Your task to perform on an android device: Open internet settings Image 0: 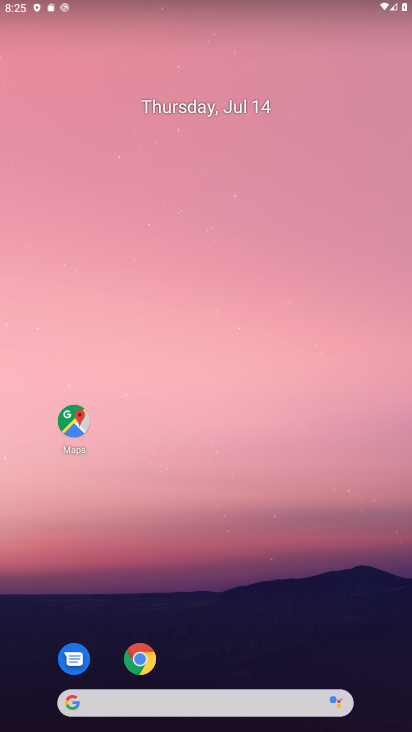
Step 0: drag from (194, 666) to (188, 215)
Your task to perform on an android device: Open internet settings Image 1: 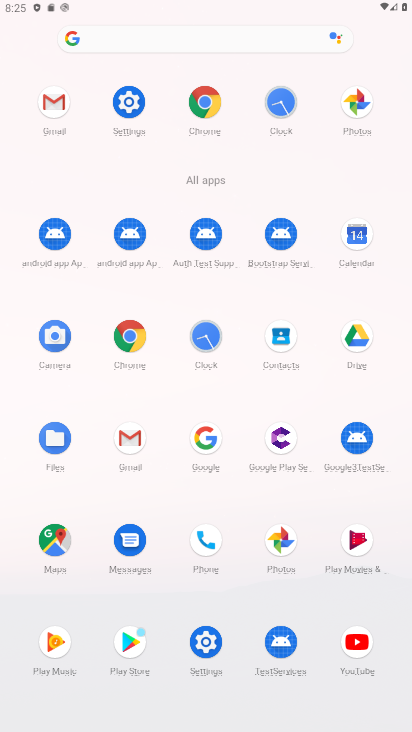
Step 1: click (127, 111)
Your task to perform on an android device: Open internet settings Image 2: 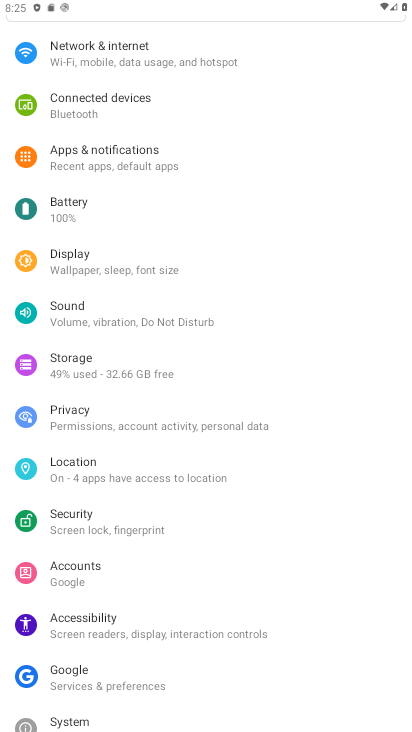
Step 2: drag from (127, 111) to (127, 400)
Your task to perform on an android device: Open internet settings Image 3: 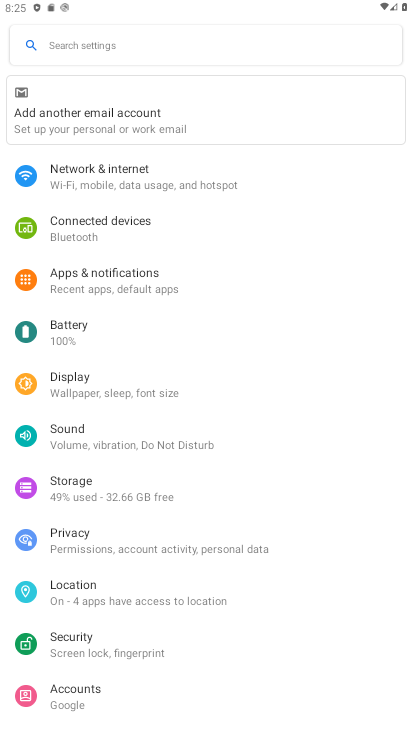
Step 3: click (130, 162)
Your task to perform on an android device: Open internet settings Image 4: 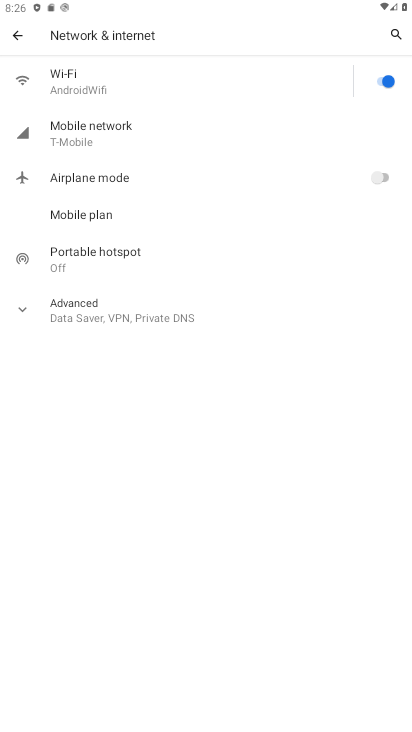
Step 4: click (122, 130)
Your task to perform on an android device: Open internet settings Image 5: 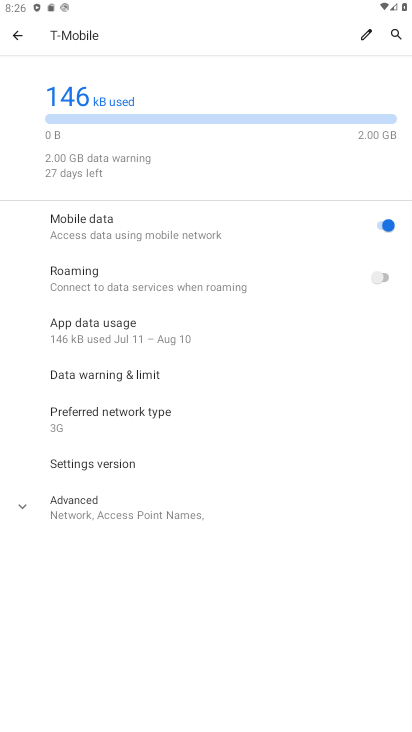
Step 5: task complete